Your task to perform on an android device: Open CNN.com Image 0: 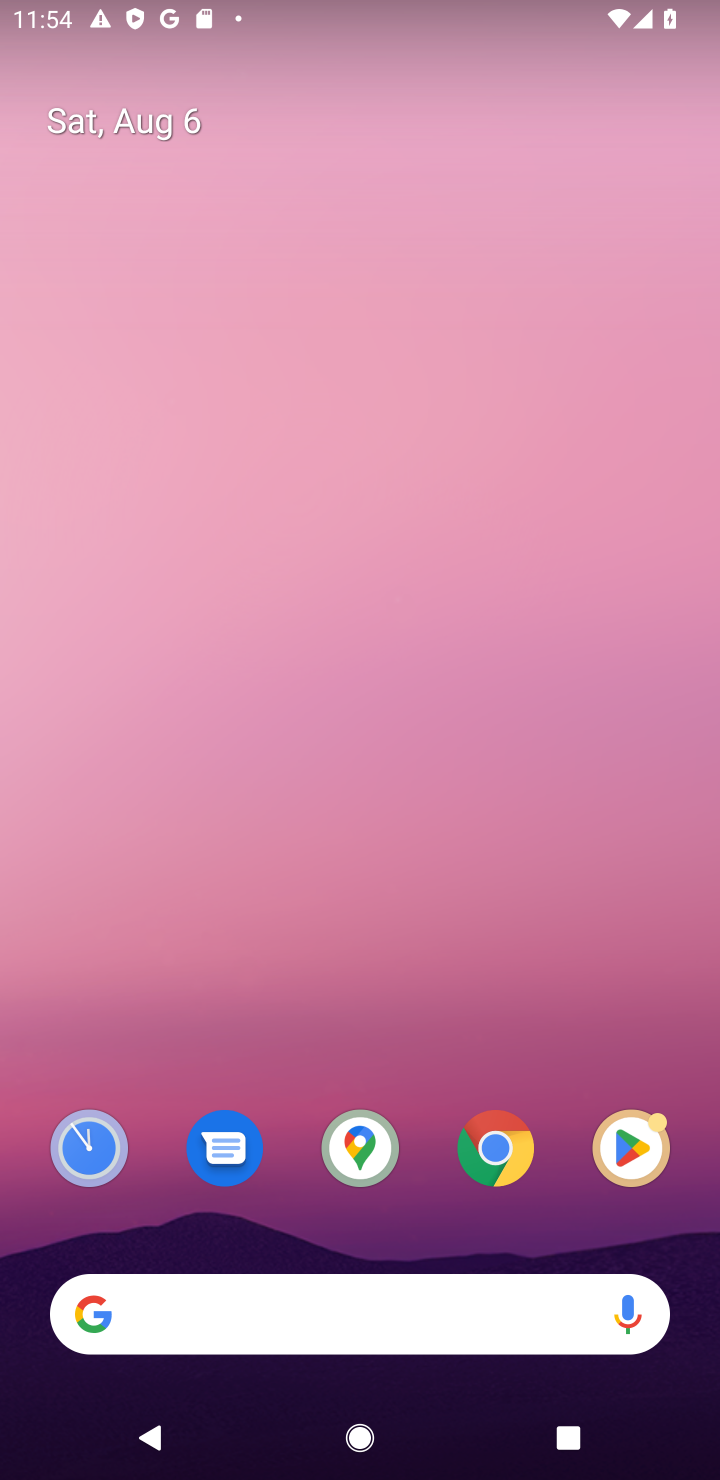
Step 0: press home button
Your task to perform on an android device: Open CNN.com Image 1: 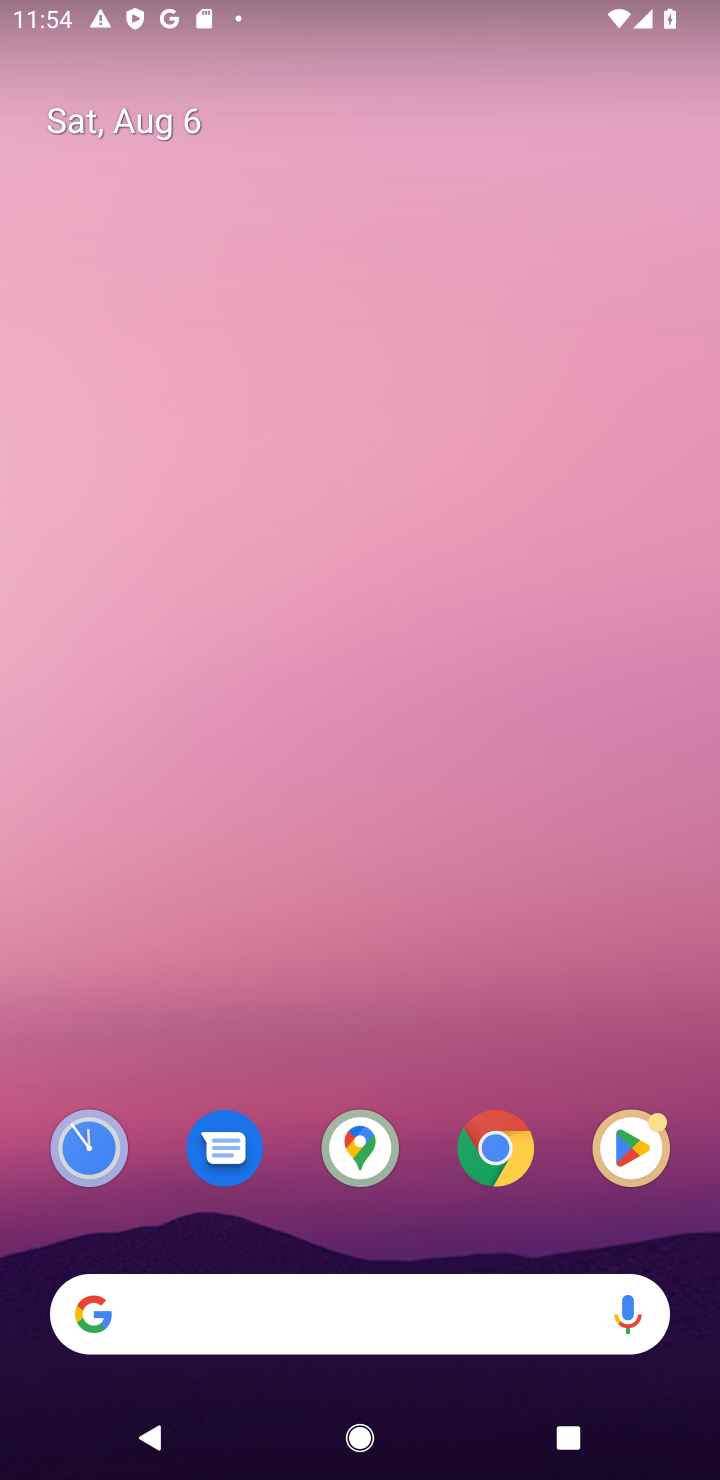
Step 1: click (389, 1317)
Your task to perform on an android device: Open CNN.com Image 2: 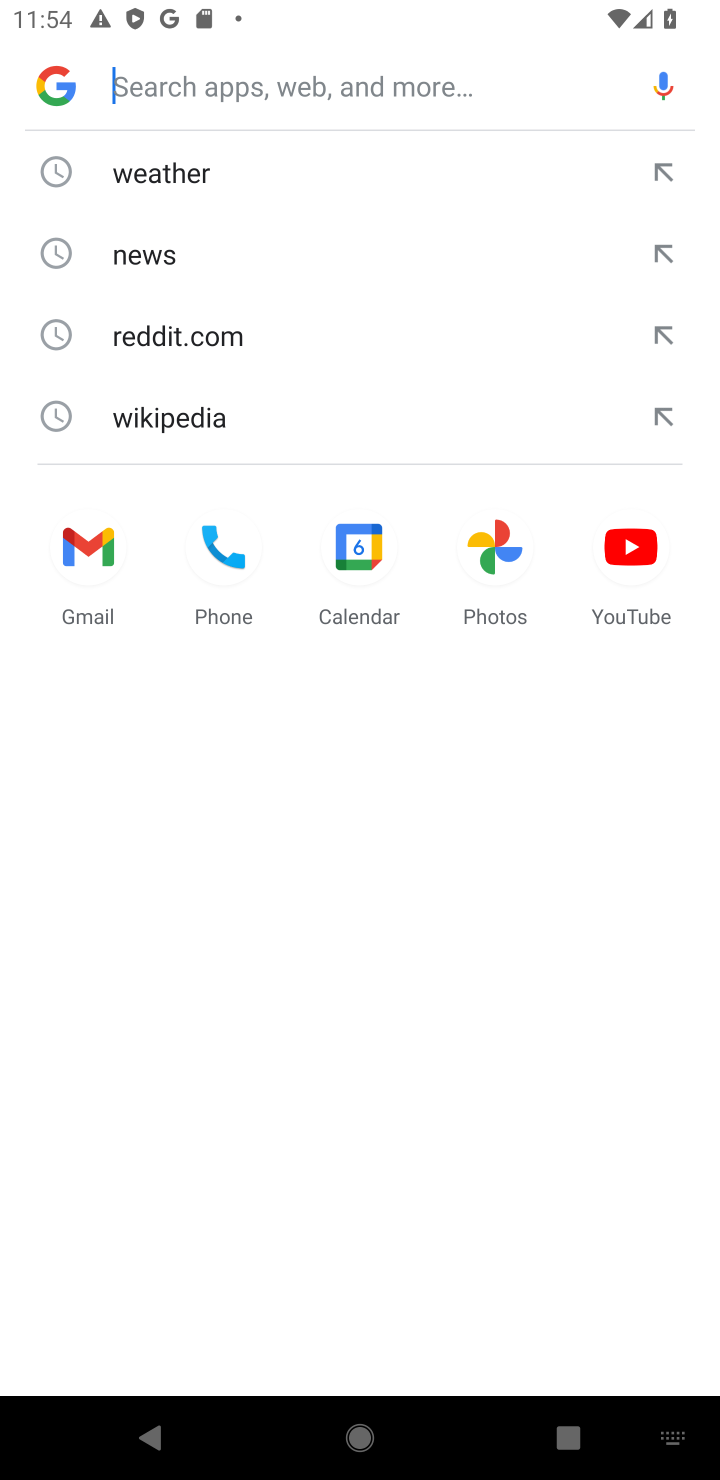
Step 2: type "cnn.com"
Your task to perform on an android device: Open CNN.com Image 3: 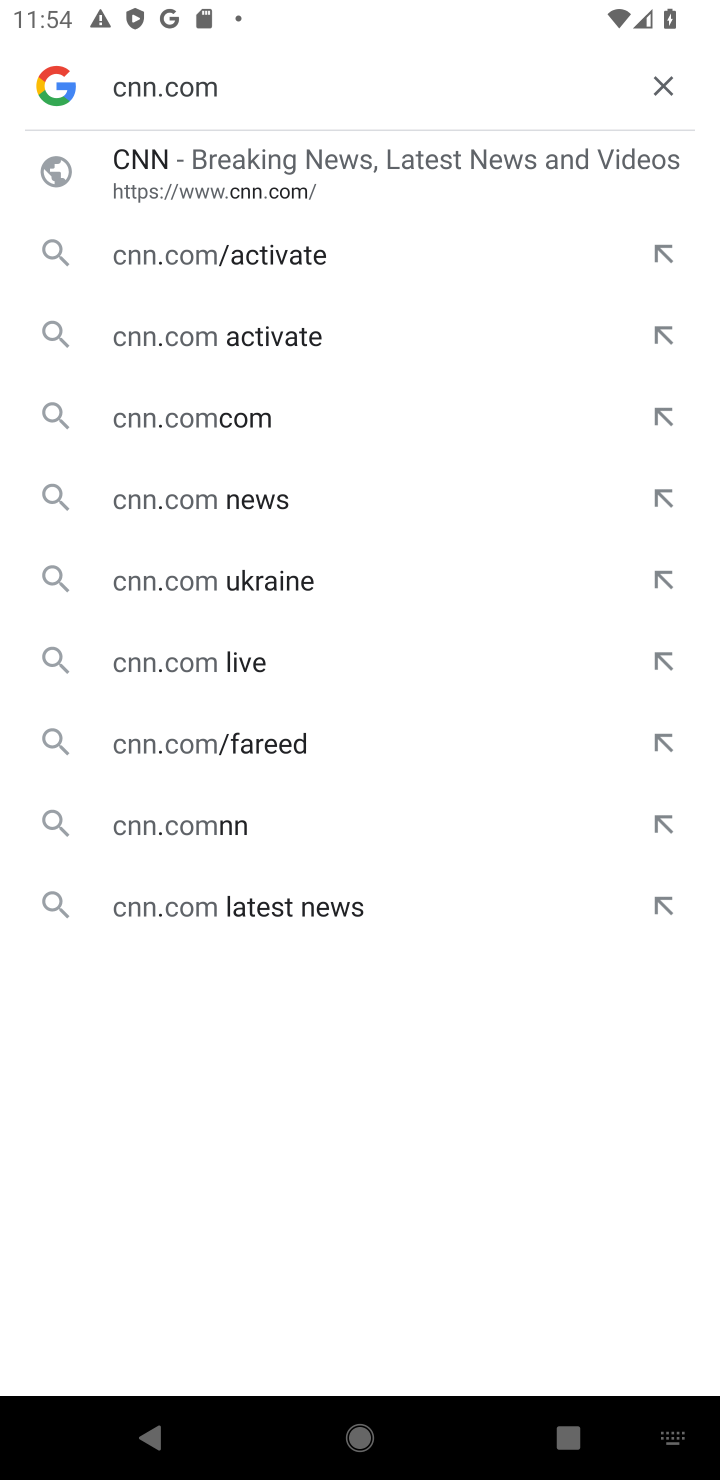
Step 3: click (216, 158)
Your task to perform on an android device: Open CNN.com Image 4: 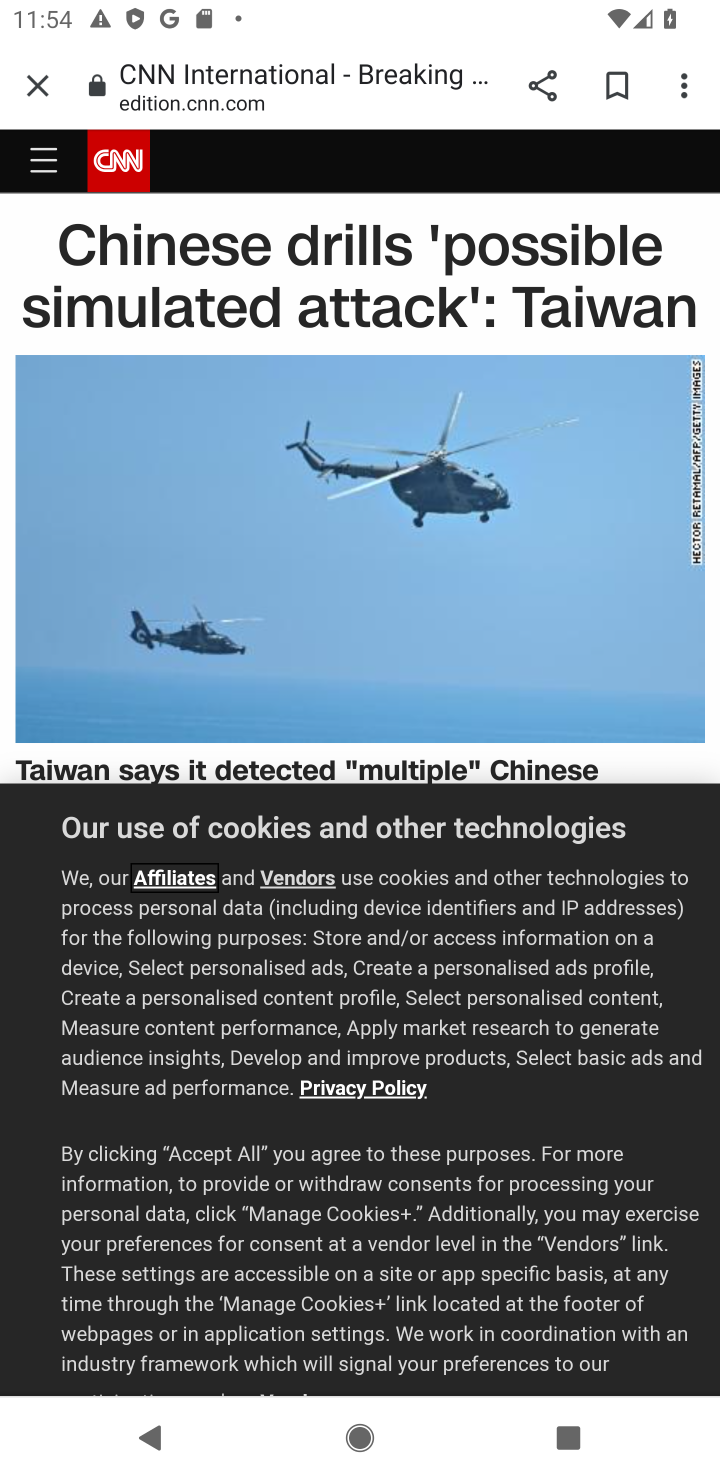
Step 4: task complete